Your task to perform on an android device: Is it going to rain this weekend? Image 0: 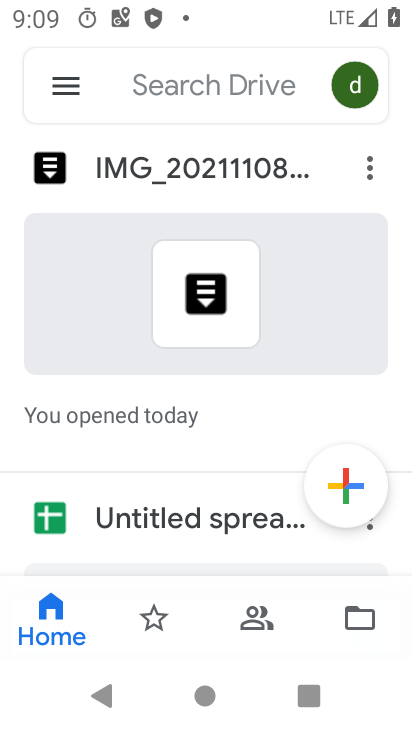
Step 0: press home button
Your task to perform on an android device: Is it going to rain this weekend? Image 1: 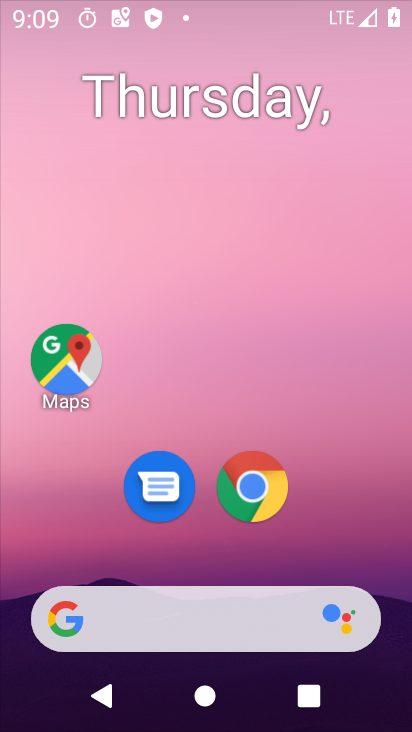
Step 1: drag from (202, 639) to (189, 252)
Your task to perform on an android device: Is it going to rain this weekend? Image 2: 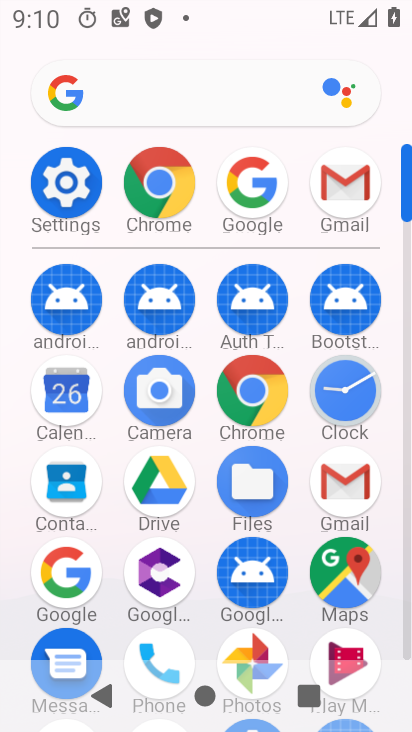
Step 2: click (63, 585)
Your task to perform on an android device: Is it going to rain this weekend? Image 3: 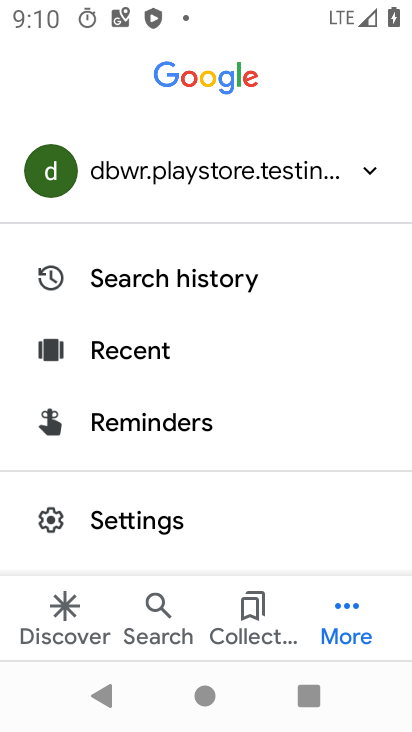
Step 3: click (46, 613)
Your task to perform on an android device: Is it going to rain this weekend? Image 4: 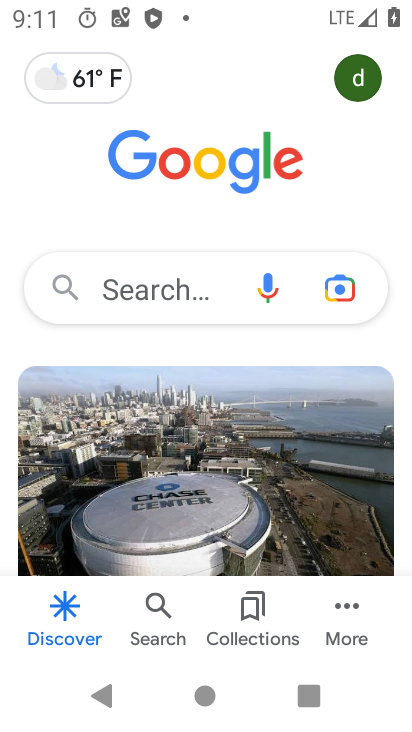
Step 4: click (160, 301)
Your task to perform on an android device: Is it going to rain this weekend? Image 5: 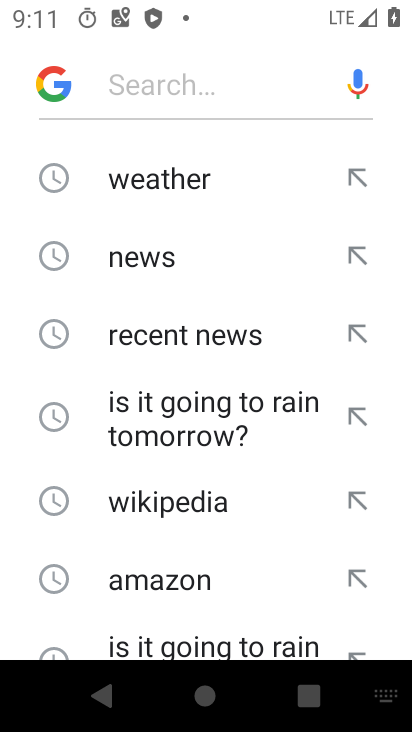
Step 5: click (175, 184)
Your task to perform on an android device: Is it going to rain this weekend? Image 6: 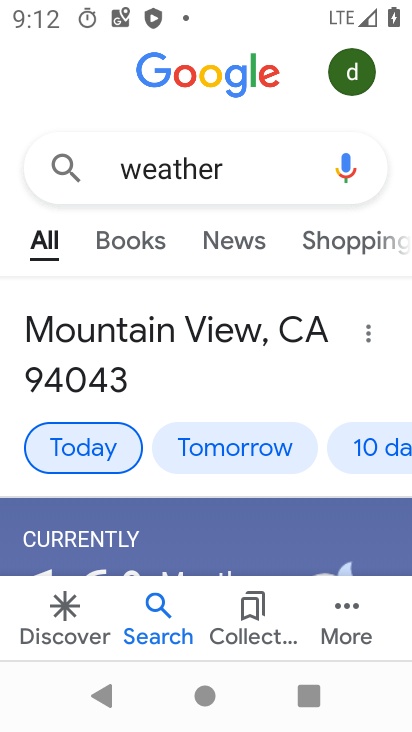
Step 6: click (374, 465)
Your task to perform on an android device: Is it going to rain this weekend? Image 7: 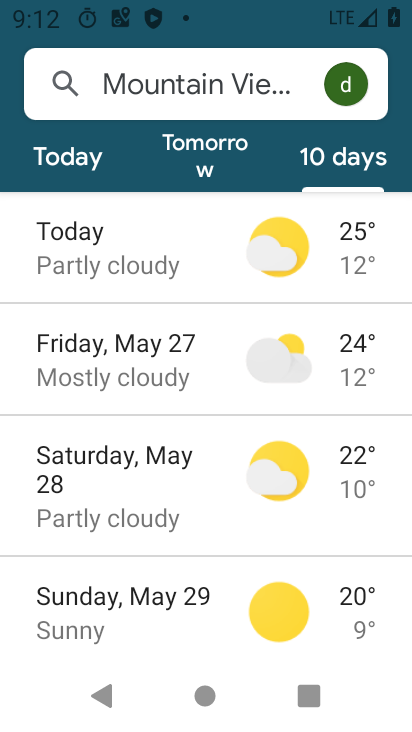
Step 7: task complete